Your task to perform on an android device: turn off priority inbox in the gmail app Image 0: 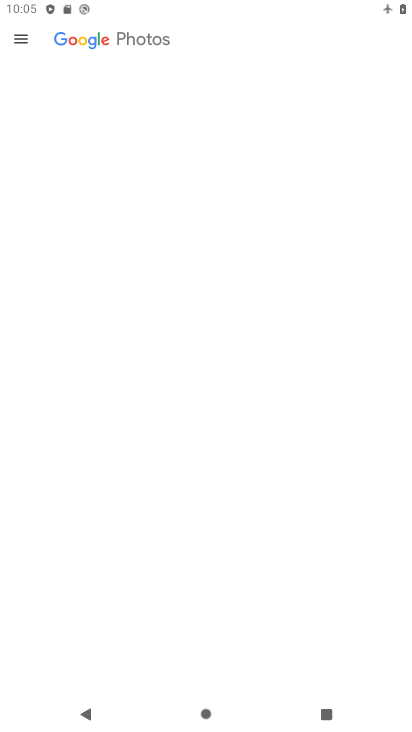
Step 0: drag from (307, 624) to (260, 255)
Your task to perform on an android device: turn off priority inbox in the gmail app Image 1: 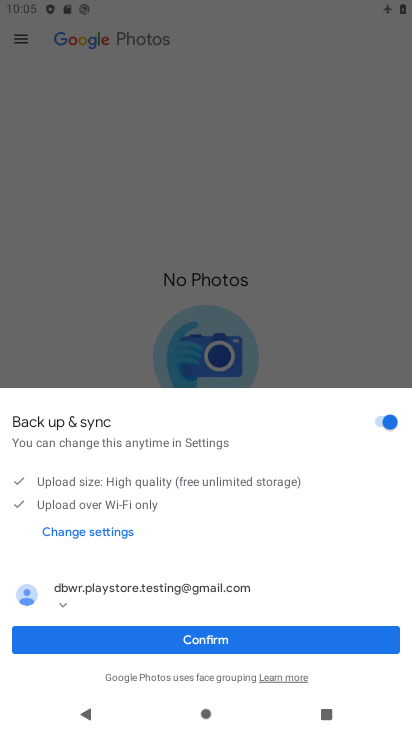
Step 1: press home button
Your task to perform on an android device: turn off priority inbox in the gmail app Image 2: 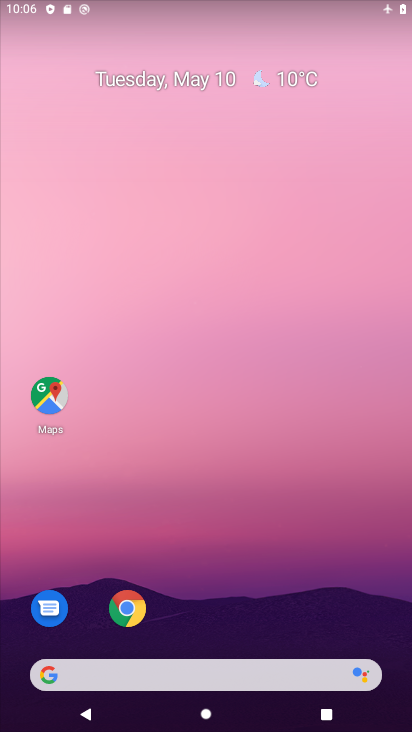
Step 2: drag from (266, 587) to (282, 11)
Your task to perform on an android device: turn off priority inbox in the gmail app Image 3: 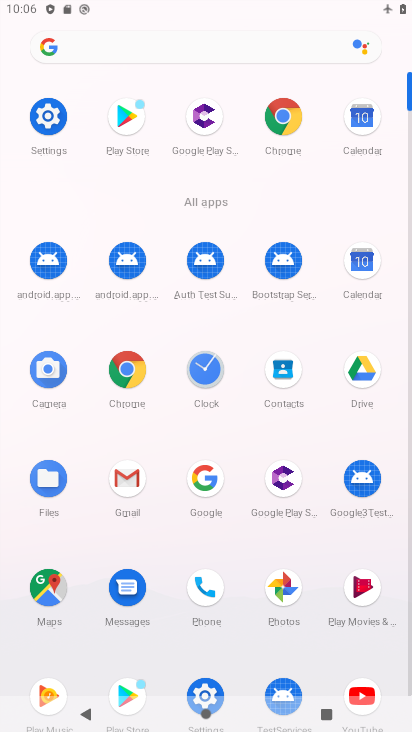
Step 3: click (116, 482)
Your task to perform on an android device: turn off priority inbox in the gmail app Image 4: 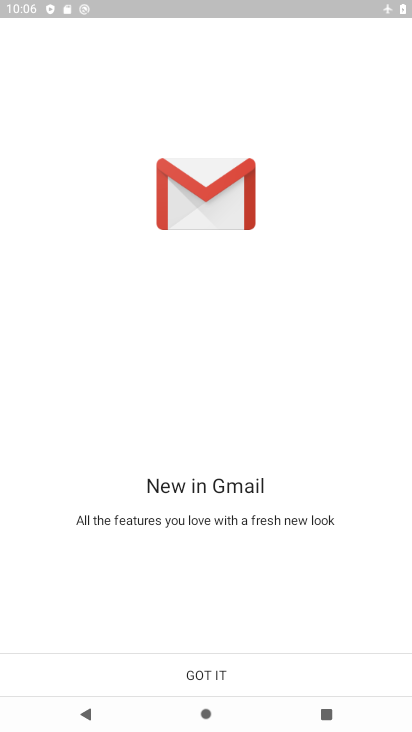
Step 4: click (236, 676)
Your task to perform on an android device: turn off priority inbox in the gmail app Image 5: 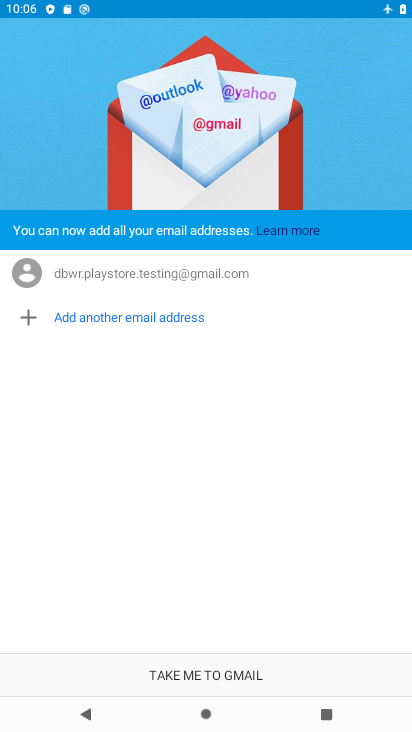
Step 5: click (211, 663)
Your task to perform on an android device: turn off priority inbox in the gmail app Image 6: 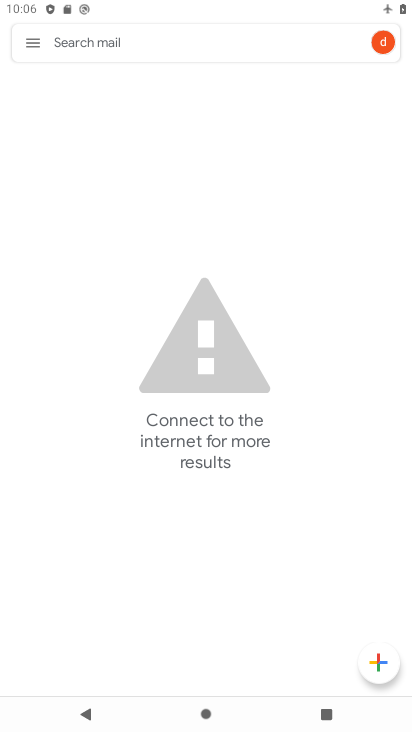
Step 6: task complete